Your task to perform on an android device: Open the map Image 0: 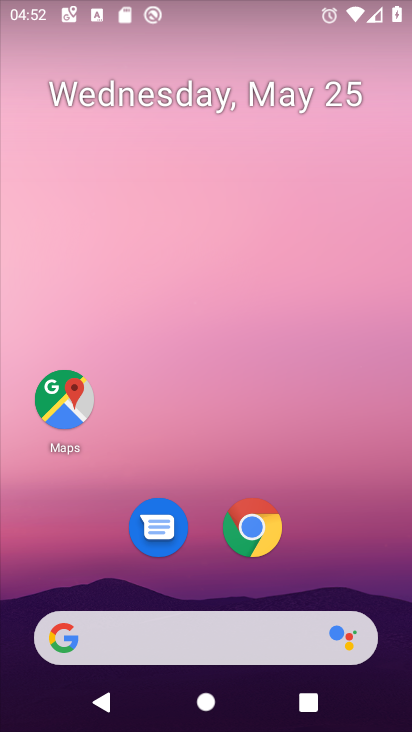
Step 0: drag from (220, 502) to (283, 24)
Your task to perform on an android device: Open the map Image 1: 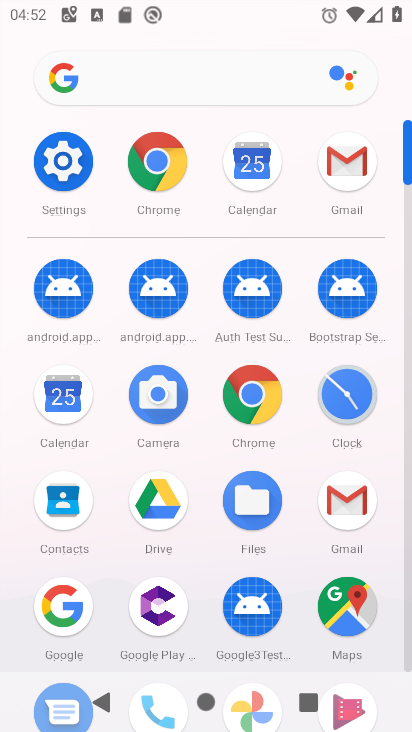
Step 1: click (343, 607)
Your task to perform on an android device: Open the map Image 2: 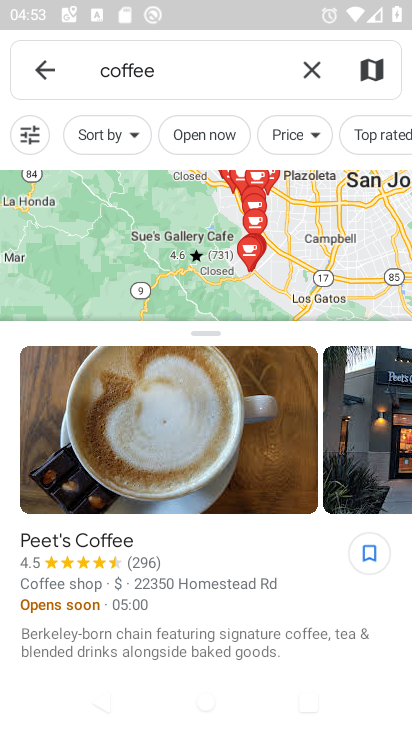
Step 2: click (313, 66)
Your task to perform on an android device: Open the map Image 3: 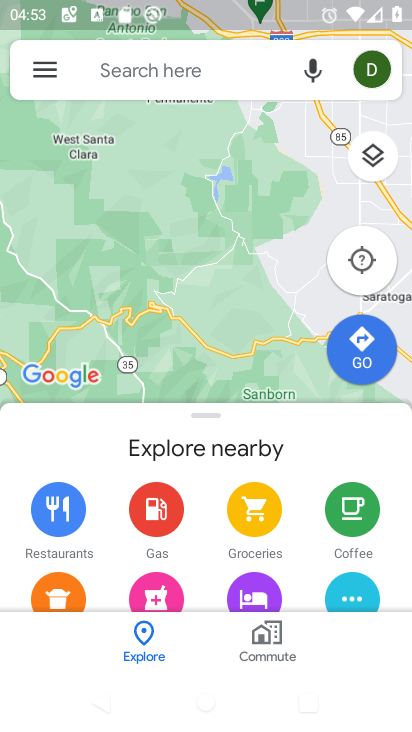
Step 3: task complete